Your task to perform on an android device: Open Google Chrome Image 0: 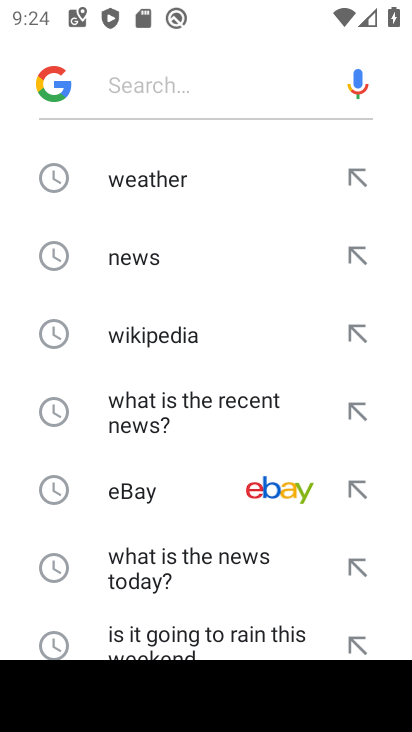
Step 0: press home button
Your task to perform on an android device: Open Google Chrome Image 1: 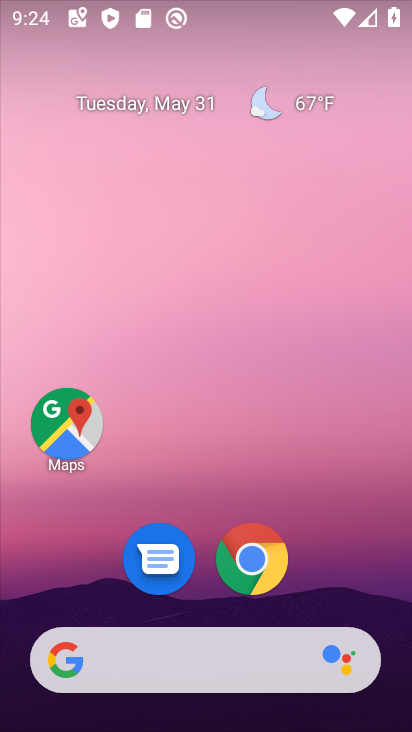
Step 1: click (253, 566)
Your task to perform on an android device: Open Google Chrome Image 2: 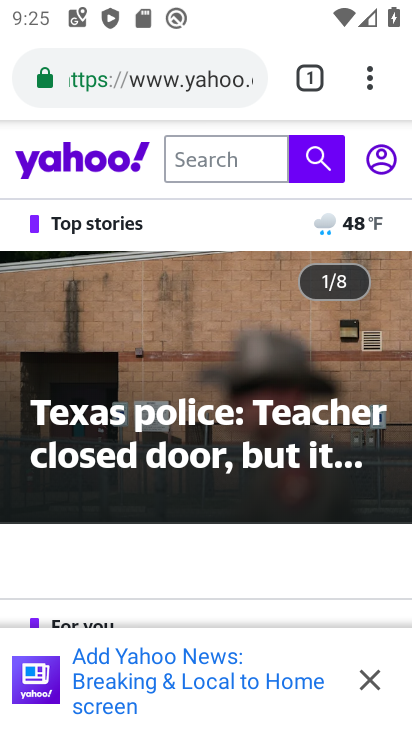
Step 2: task complete